Your task to perform on an android device: Toggle the flashlight Image 0: 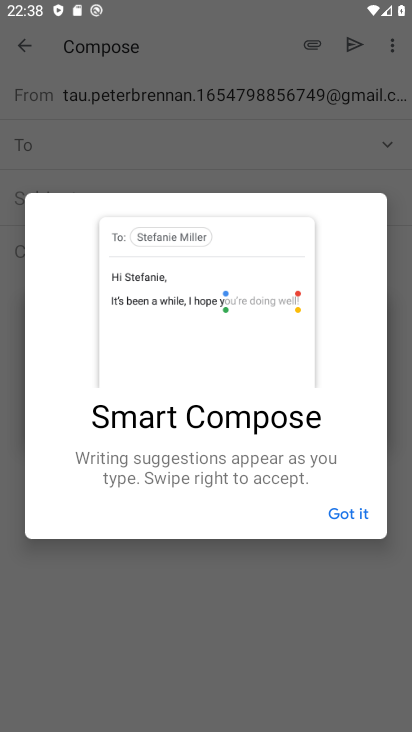
Step 0: press home button
Your task to perform on an android device: Toggle the flashlight Image 1: 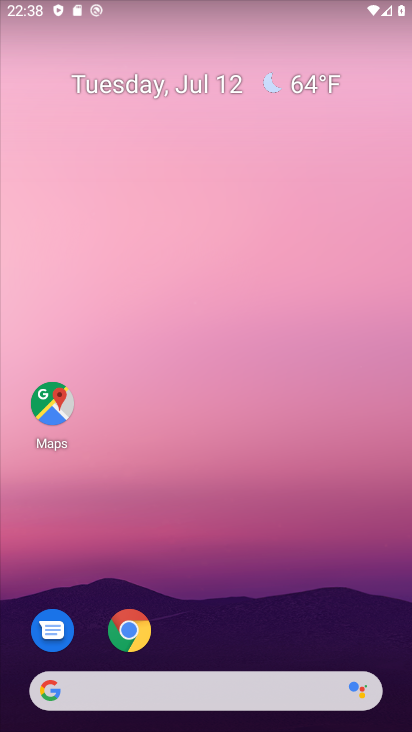
Step 1: task complete